Your task to perform on an android device: Search for the Nintendo Switch. Image 0: 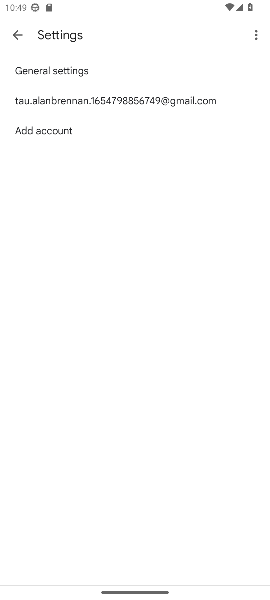
Step 0: press home button
Your task to perform on an android device: Search for the Nintendo Switch. Image 1: 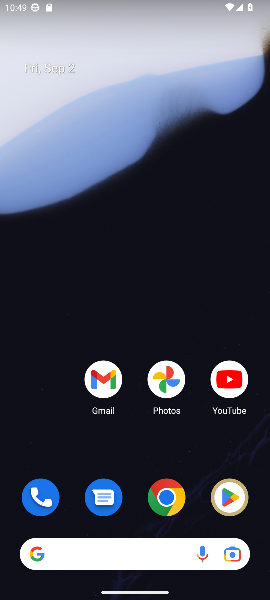
Step 1: click (111, 552)
Your task to perform on an android device: Search for the Nintendo Switch. Image 2: 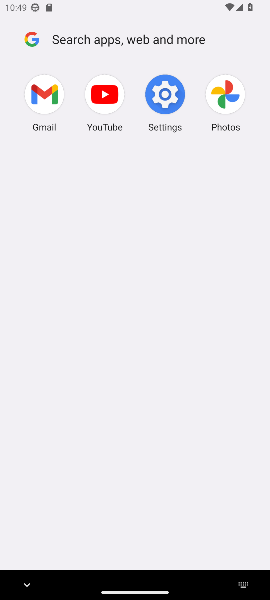
Step 2: press home button
Your task to perform on an android device: Search for the Nintendo Switch. Image 3: 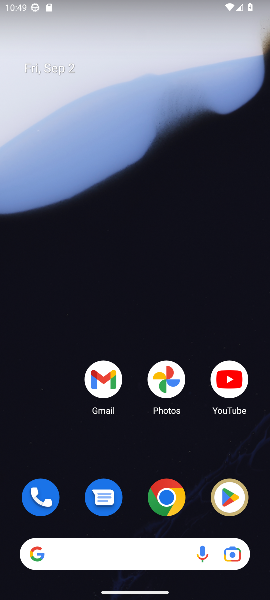
Step 3: click (166, 506)
Your task to perform on an android device: Search for the Nintendo Switch. Image 4: 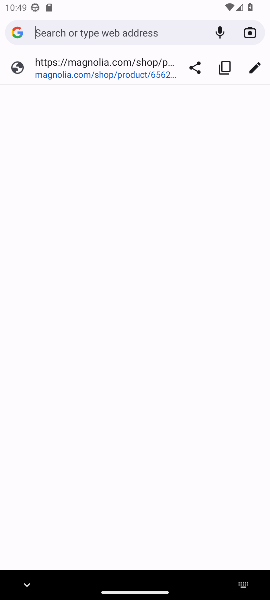
Step 4: type "the Nintendo Switch"
Your task to perform on an android device: Search for the Nintendo Switch. Image 5: 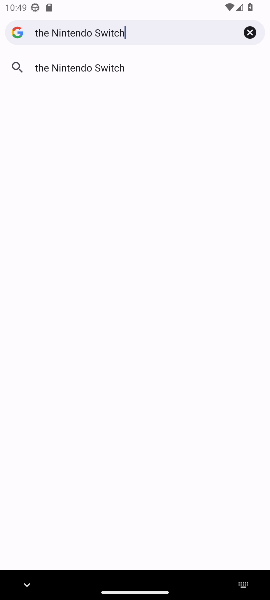
Step 5: click (91, 69)
Your task to perform on an android device: Search for the Nintendo Switch. Image 6: 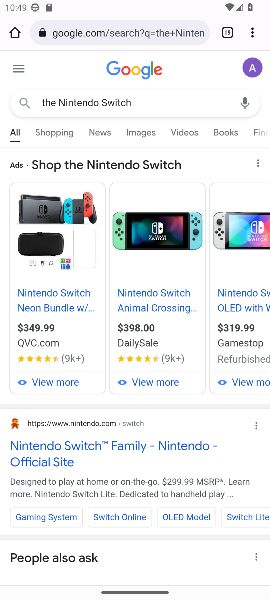
Step 6: task complete